Your task to perform on an android device: Open Youtube and go to "Your channel" Image 0: 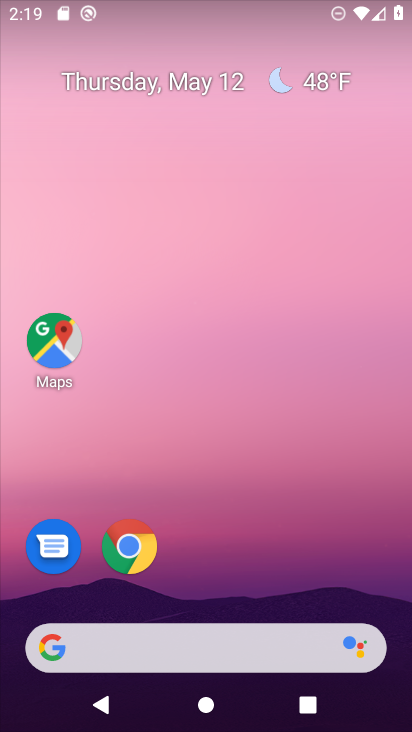
Step 0: drag from (257, 673) to (171, 228)
Your task to perform on an android device: Open Youtube and go to "Your channel" Image 1: 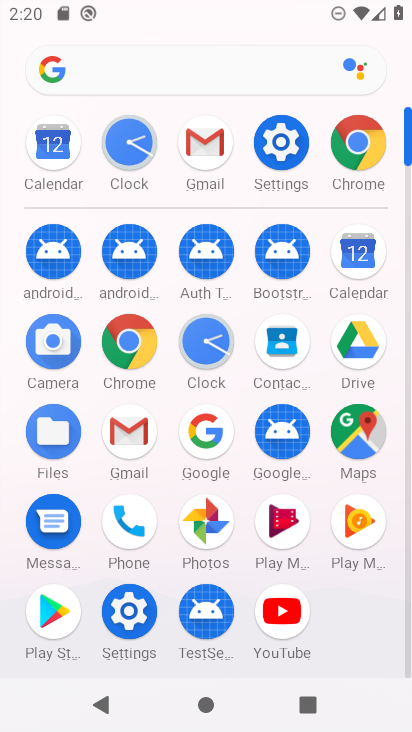
Step 1: click (287, 608)
Your task to perform on an android device: Open Youtube and go to "Your channel" Image 2: 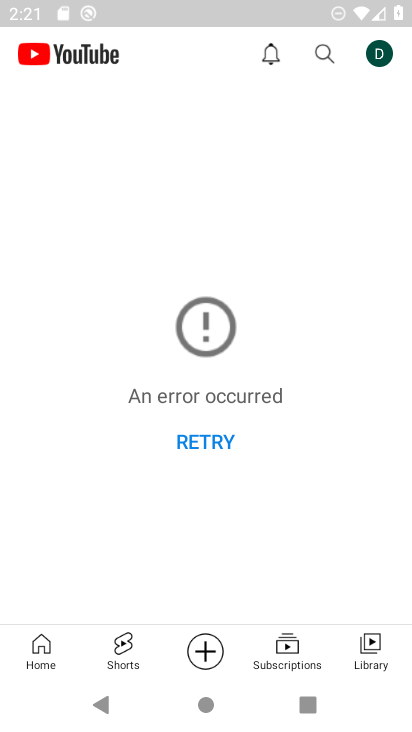
Step 2: click (383, 60)
Your task to perform on an android device: Open Youtube and go to "Your channel" Image 3: 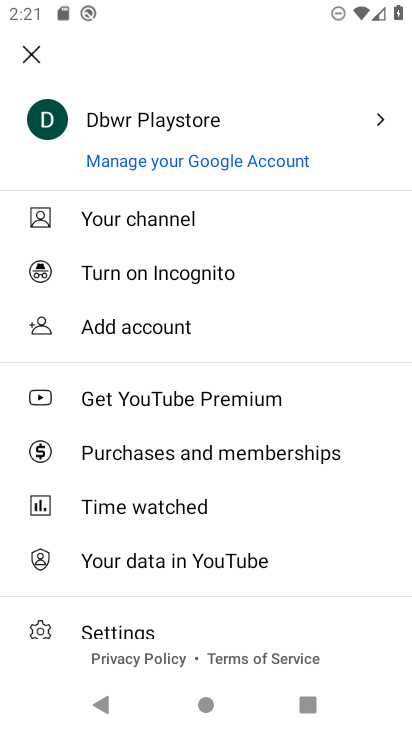
Step 3: click (166, 218)
Your task to perform on an android device: Open Youtube and go to "Your channel" Image 4: 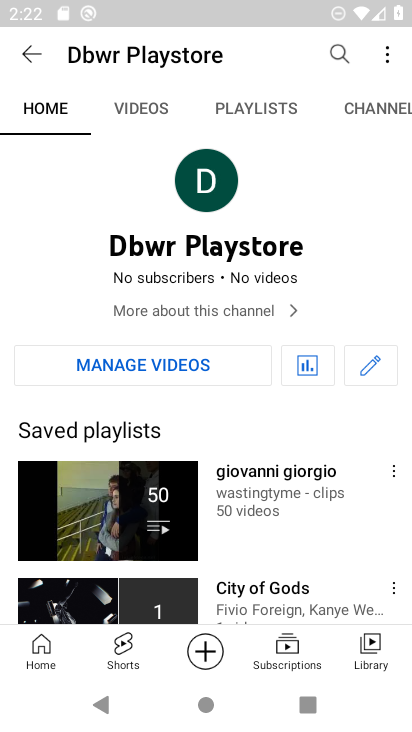
Step 4: task complete